Your task to perform on an android device: add a contact in the contacts app Image 0: 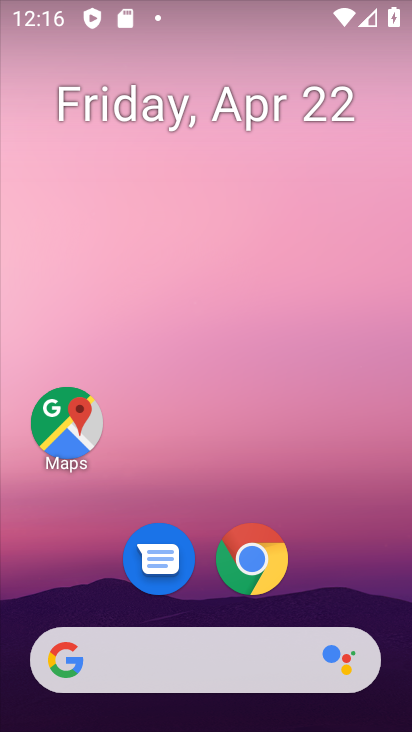
Step 0: drag from (347, 583) to (348, 156)
Your task to perform on an android device: add a contact in the contacts app Image 1: 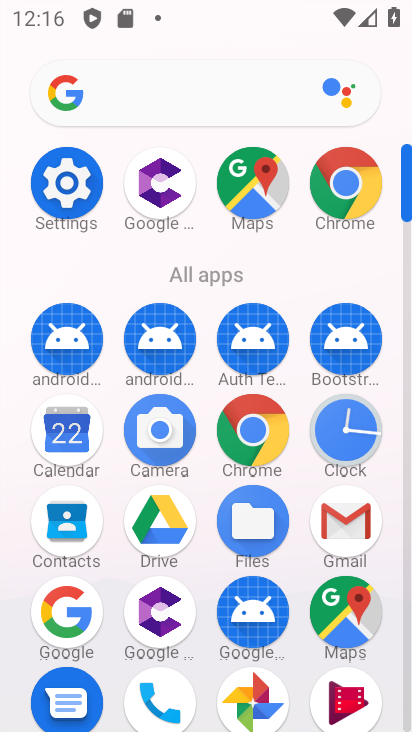
Step 1: click (62, 539)
Your task to perform on an android device: add a contact in the contacts app Image 2: 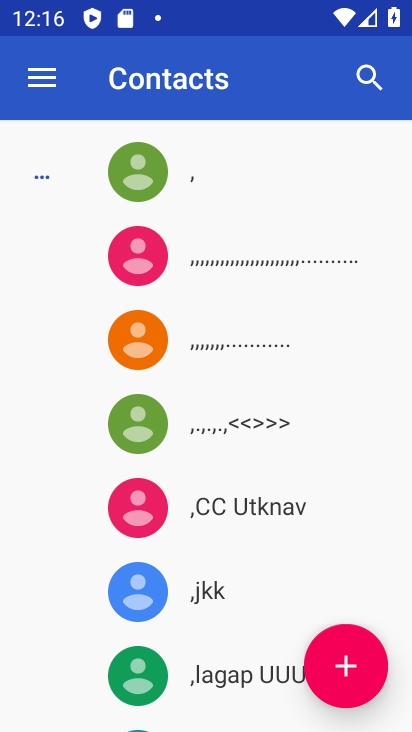
Step 2: click (365, 660)
Your task to perform on an android device: add a contact in the contacts app Image 3: 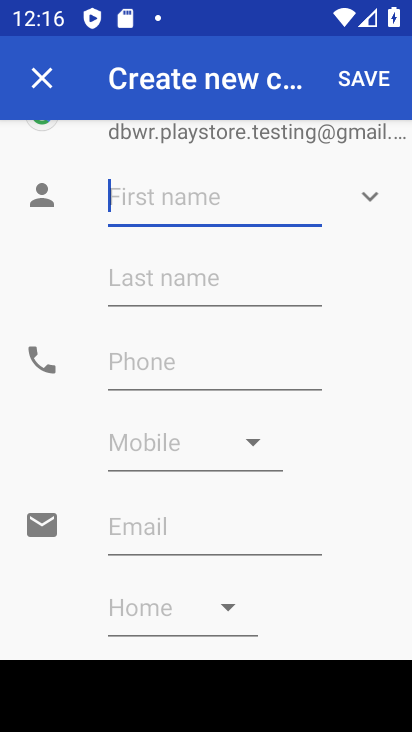
Step 3: type "lolol"
Your task to perform on an android device: add a contact in the contacts app Image 4: 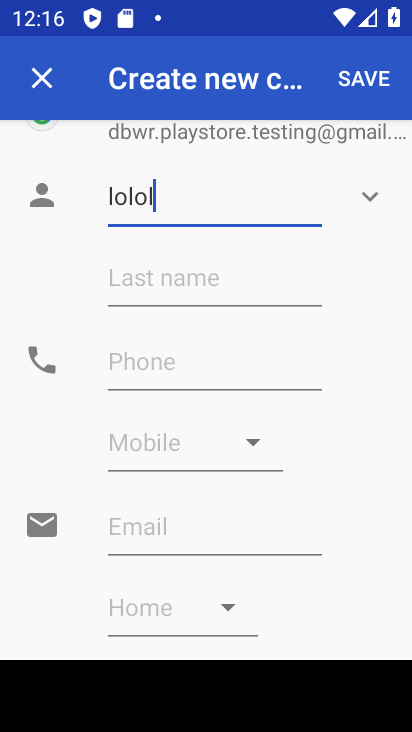
Step 4: click (283, 380)
Your task to perform on an android device: add a contact in the contacts app Image 5: 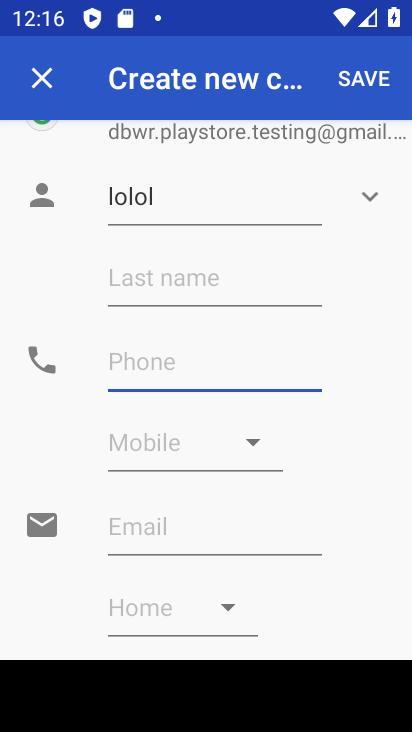
Step 5: type "1234567890"
Your task to perform on an android device: add a contact in the contacts app Image 6: 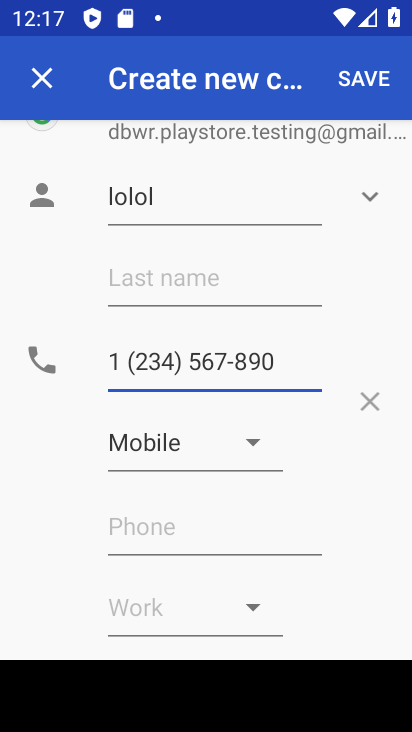
Step 6: click (375, 86)
Your task to perform on an android device: add a contact in the contacts app Image 7: 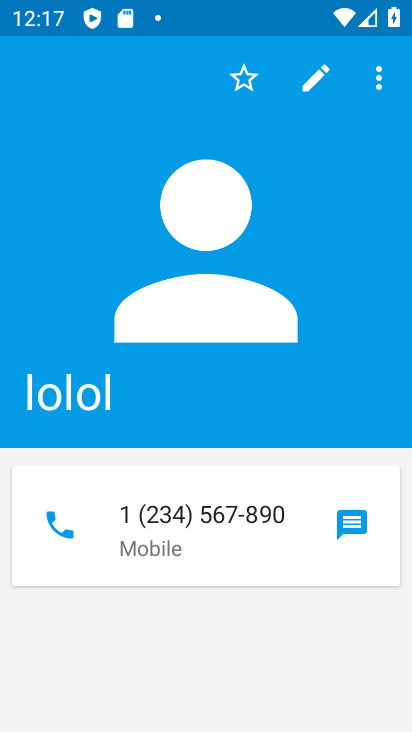
Step 7: task complete